Your task to perform on an android device: What is the news today? Image 0: 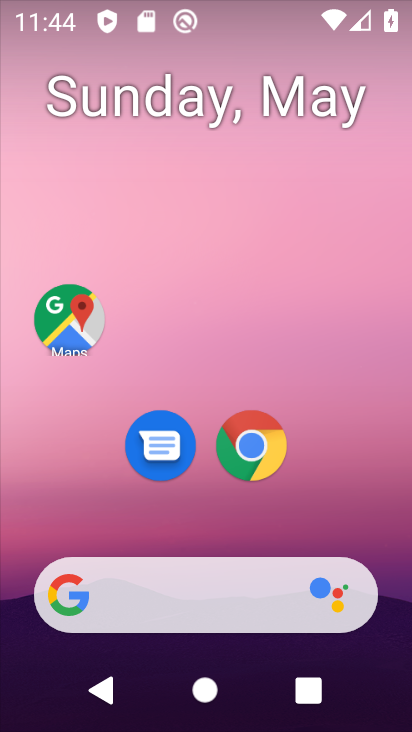
Step 0: drag from (327, 481) to (341, 68)
Your task to perform on an android device: What is the news today? Image 1: 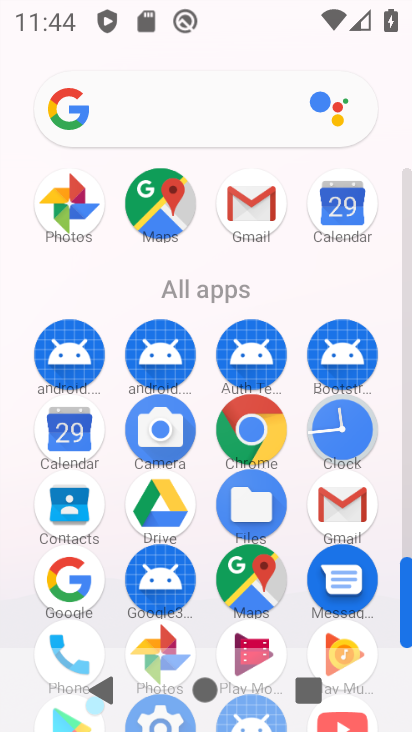
Step 1: click (250, 423)
Your task to perform on an android device: What is the news today? Image 2: 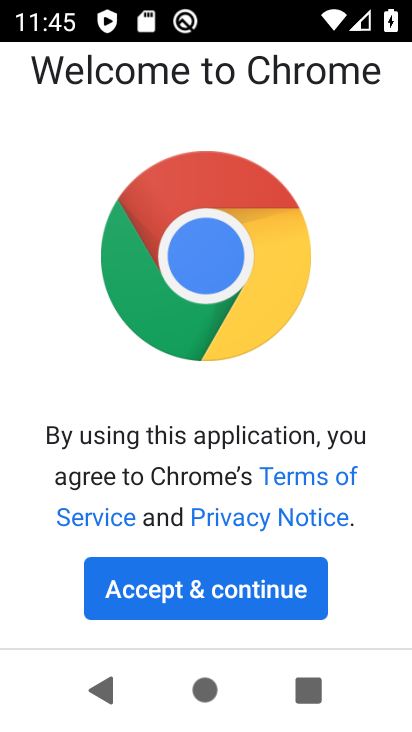
Step 2: click (182, 576)
Your task to perform on an android device: What is the news today? Image 3: 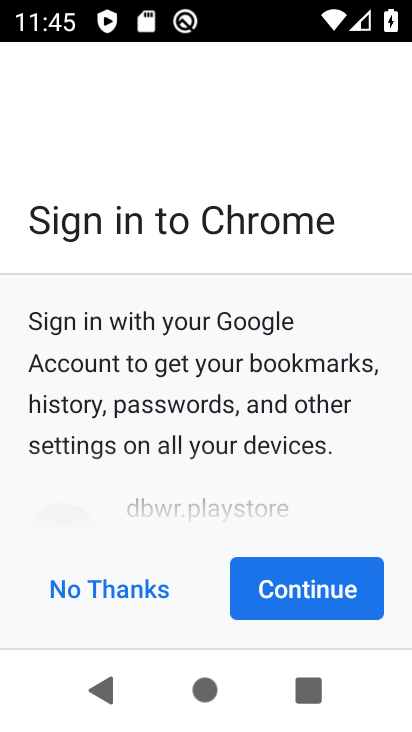
Step 3: click (272, 607)
Your task to perform on an android device: What is the news today? Image 4: 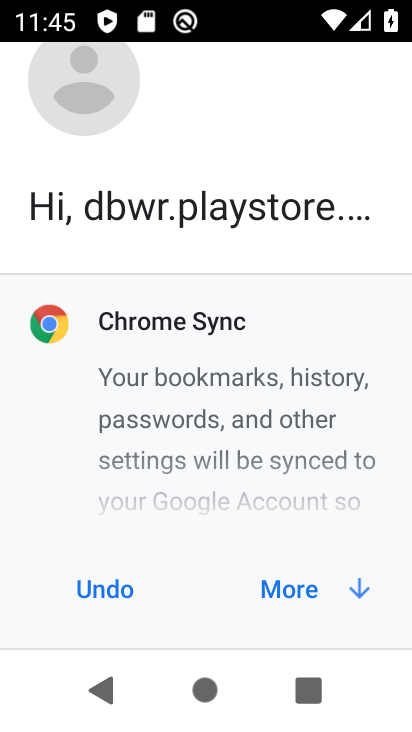
Step 4: click (340, 601)
Your task to perform on an android device: What is the news today? Image 5: 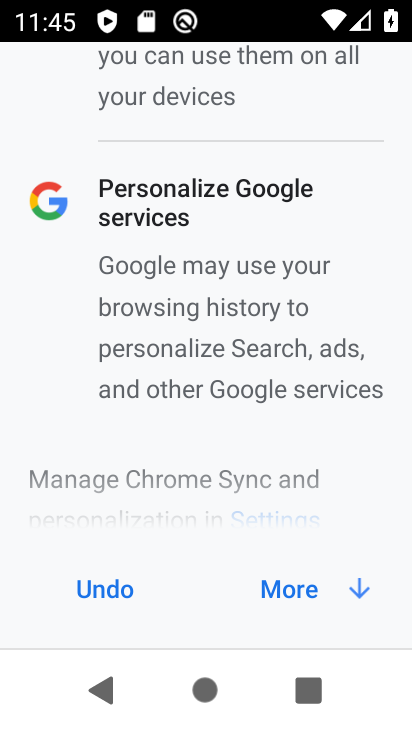
Step 5: click (340, 601)
Your task to perform on an android device: What is the news today? Image 6: 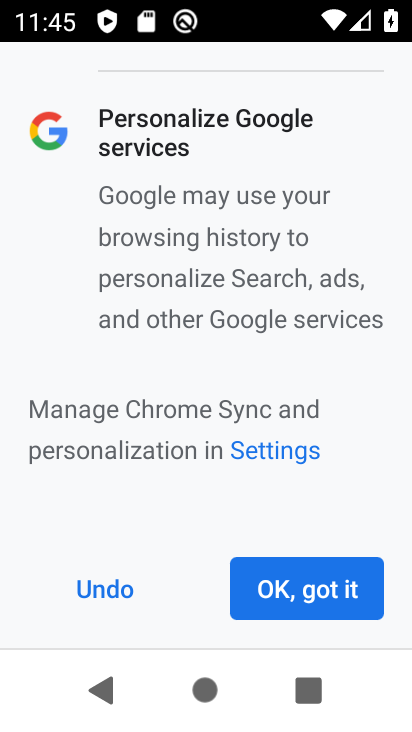
Step 6: click (340, 601)
Your task to perform on an android device: What is the news today? Image 7: 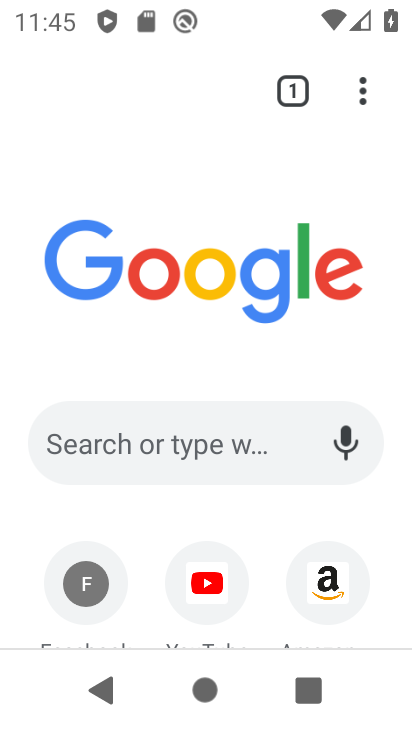
Step 7: click (175, 433)
Your task to perform on an android device: What is the news today? Image 8: 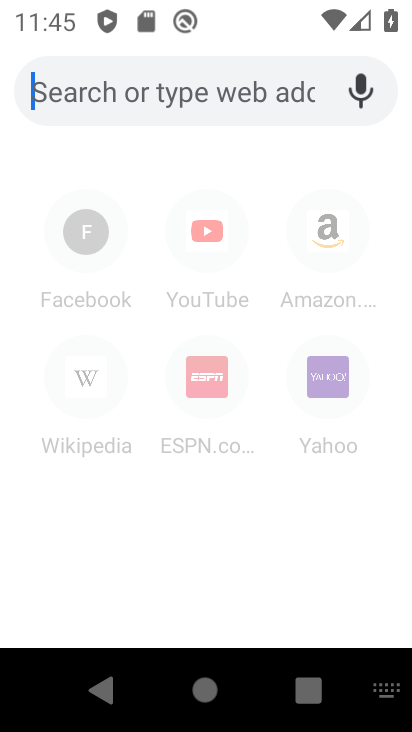
Step 8: type "What is the news today?"
Your task to perform on an android device: What is the news today? Image 9: 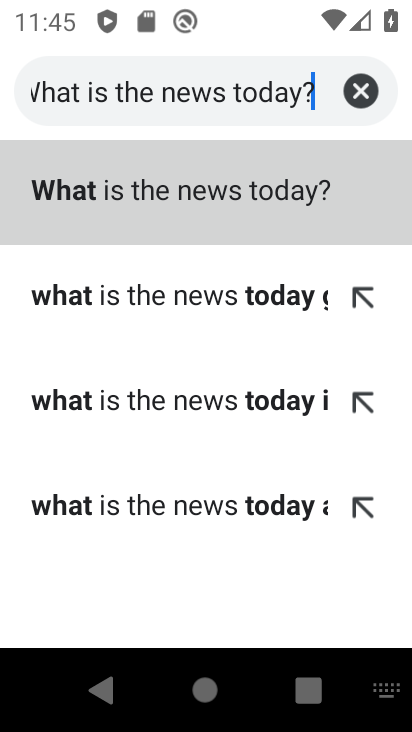
Step 9: click (178, 192)
Your task to perform on an android device: What is the news today? Image 10: 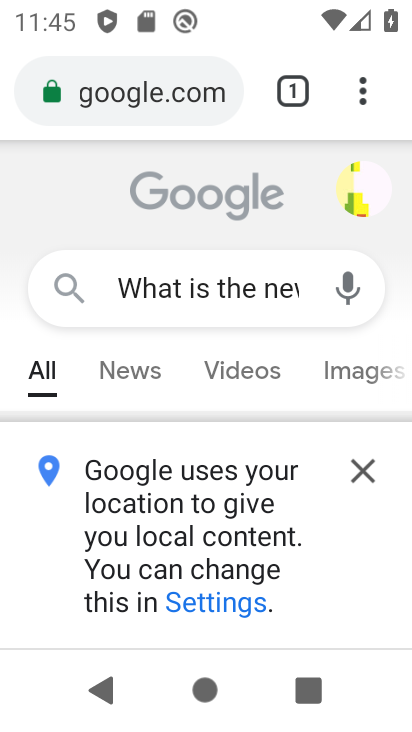
Step 10: click (352, 468)
Your task to perform on an android device: What is the news today? Image 11: 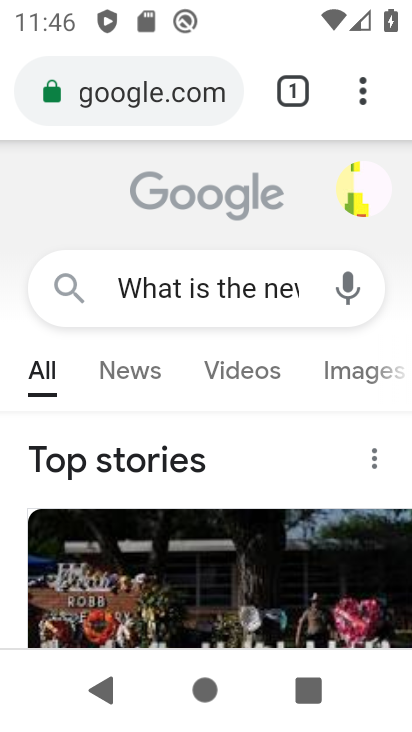
Step 11: drag from (308, 580) to (310, 195)
Your task to perform on an android device: What is the news today? Image 12: 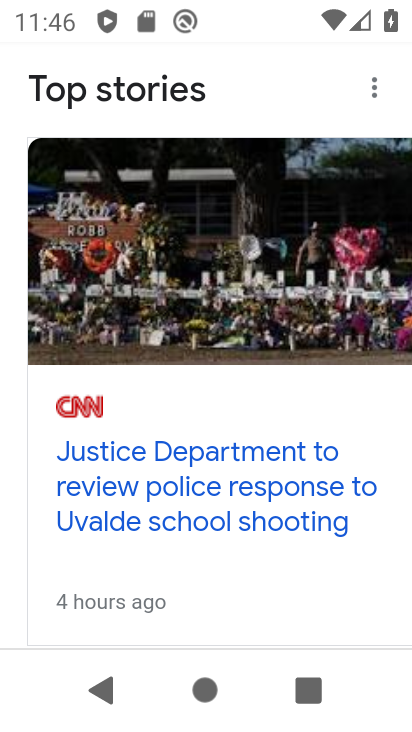
Step 12: drag from (228, 145) to (257, 551)
Your task to perform on an android device: What is the news today? Image 13: 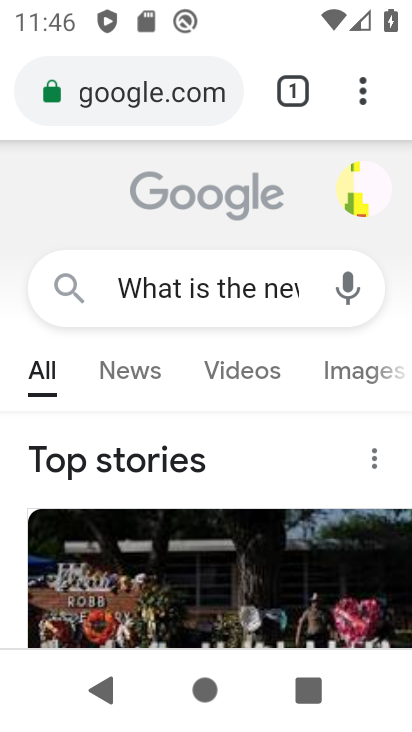
Step 13: click (140, 362)
Your task to perform on an android device: What is the news today? Image 14: 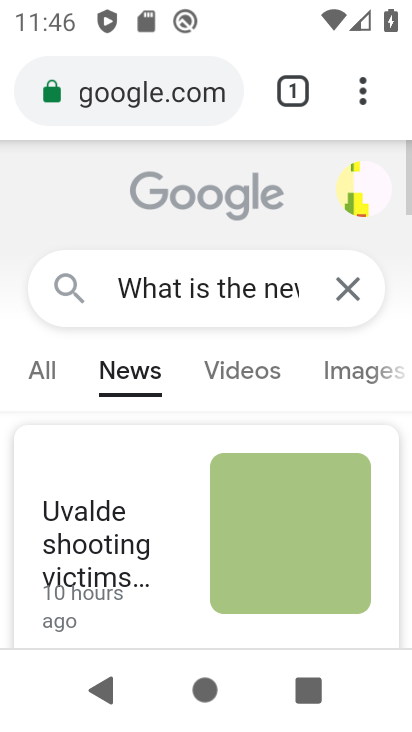
Step 14: task complete